Your task to perform on an android device: Go to Maps Image 0: 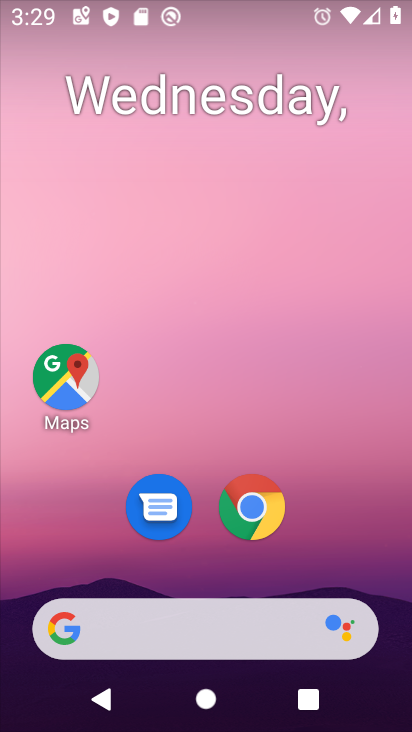
Step 0: click (64, 389)
Your task to perform on an android device: Go to Maps Image 1: 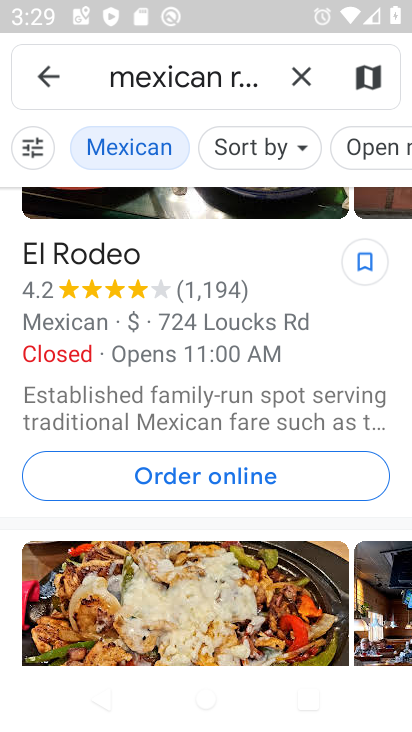
Step 1: task complete